Your task to perform on an android device: Open battery settings Image 0: 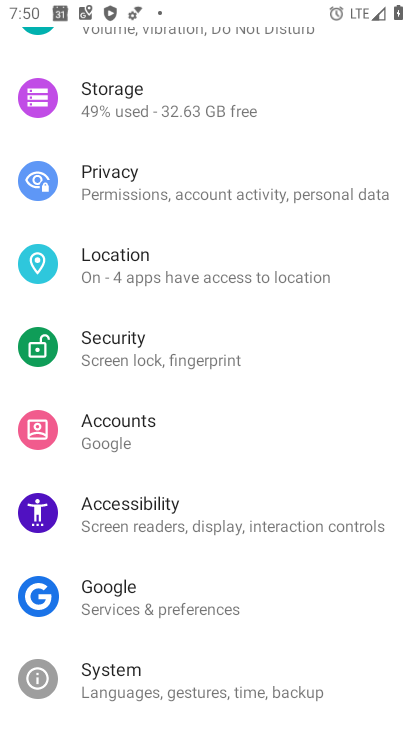
Step 0: drag from (290, 544) to (243, 213)
Your task to perform on an android device: Open battery settings Image 1: 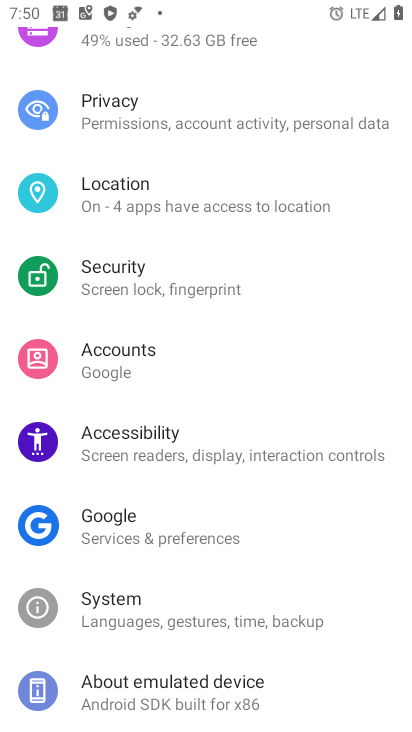
Step 1: press home button
Your task to perform on an android device: Open battery settings Image 2: 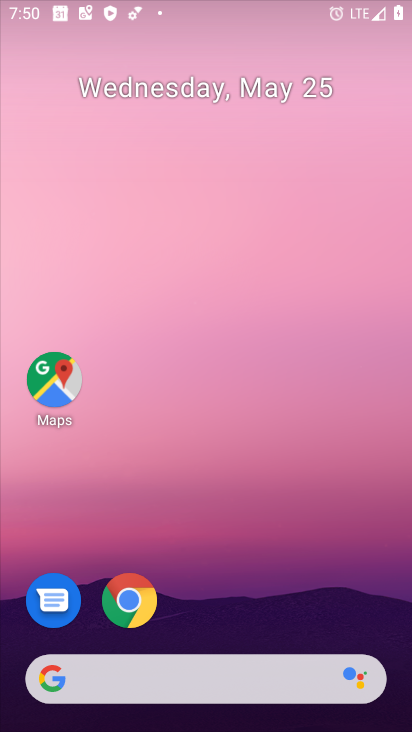
Step 2: drag from (313, 583) to (216, 168)
Your task to perform on an android device: Open battery settings Image 3: 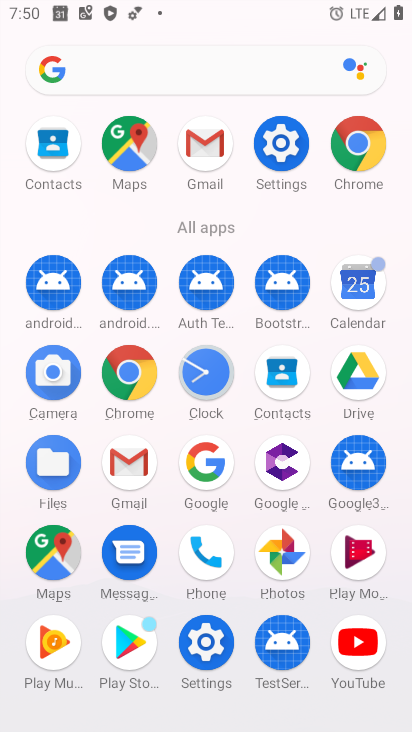
Step 3: click (262, 131)
Your task to perform on an android device: Open battery settings Image 4: 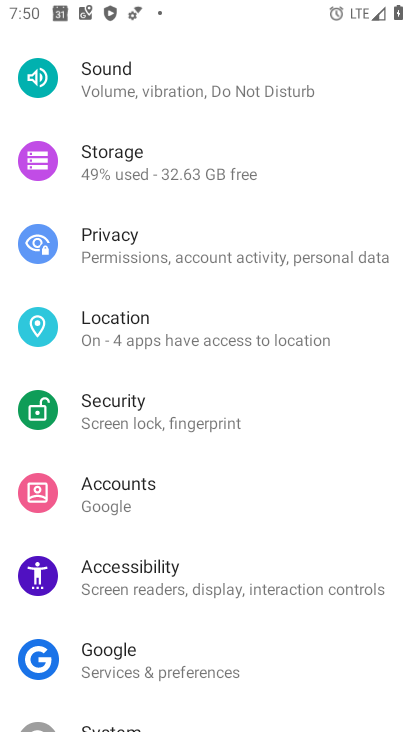
Step 4: drag from (192, 218) to (186, 522)
Your task to perform on an android device: Open battery settings Image 5: 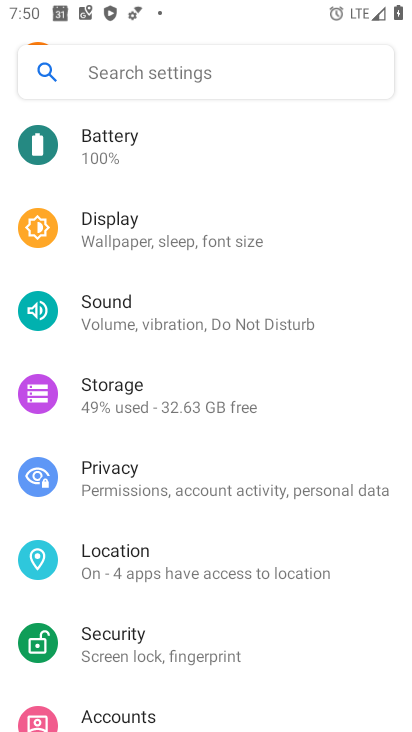
Step 5: click (101, 162)
Your task to perform on an android device: Open battery settings Image 6: 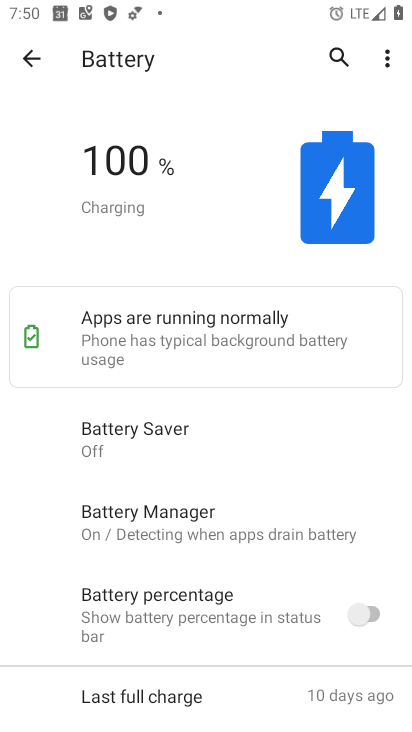
Step 6: task complete